Your task to perform on an android device: toggle wifi Image 0: 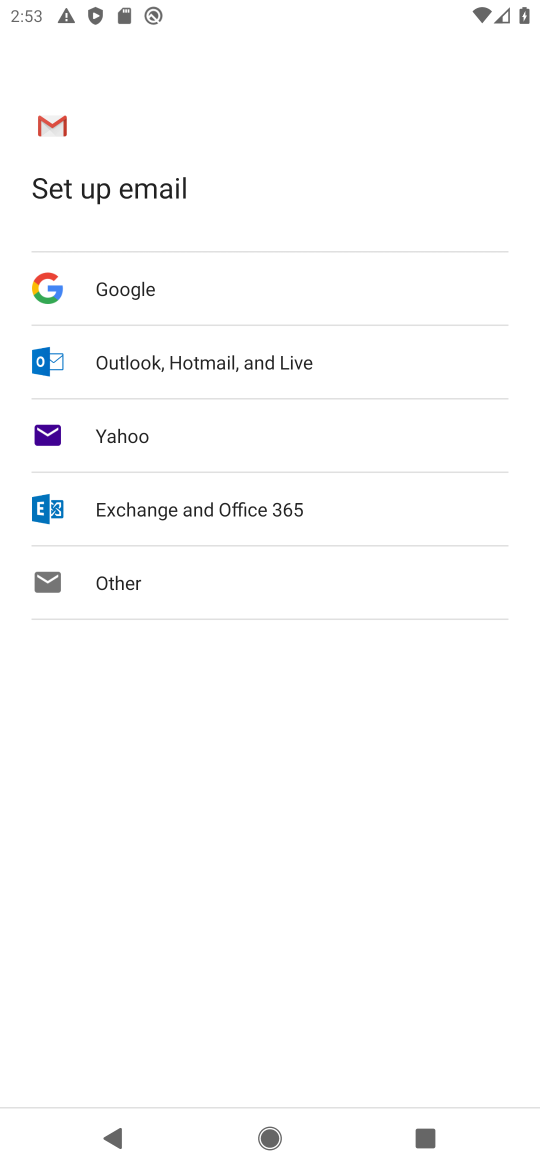
Step 0: press home button
Your task to perform on an android device: toggle wifi Image 1: 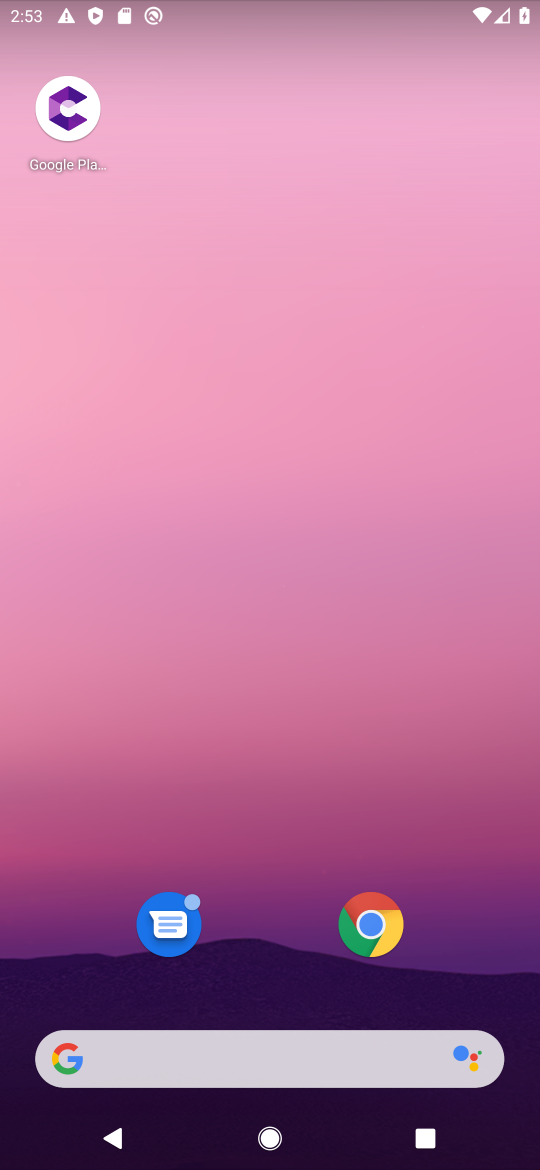
Step 1: drag from (315, 703) to (309, 180)
Your task to perform on an android device: toggle wifi Image 2: 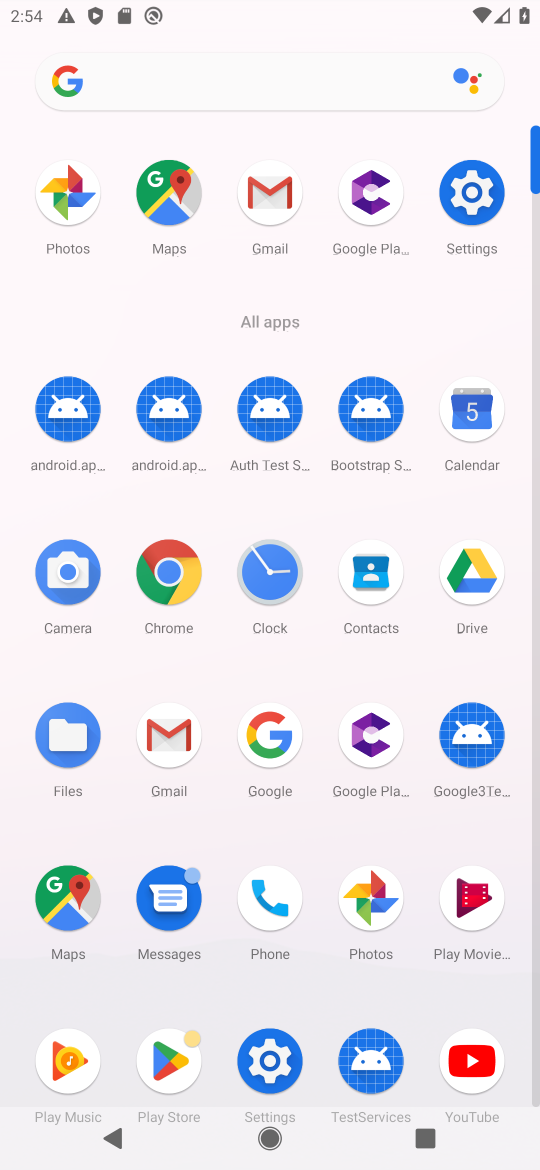
Step 2: click (293, 1060)
Your task to perform on an android device: toggle wifi Image 3: 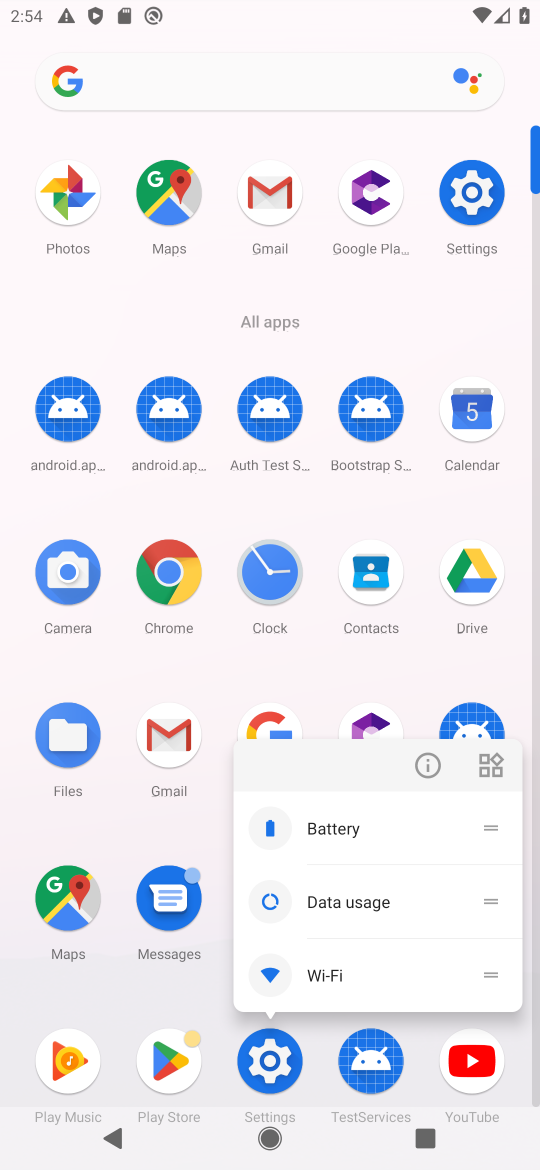
Step 3: click (261, 1061)
Your task to perform on an android device: toggle wifi Image 4: 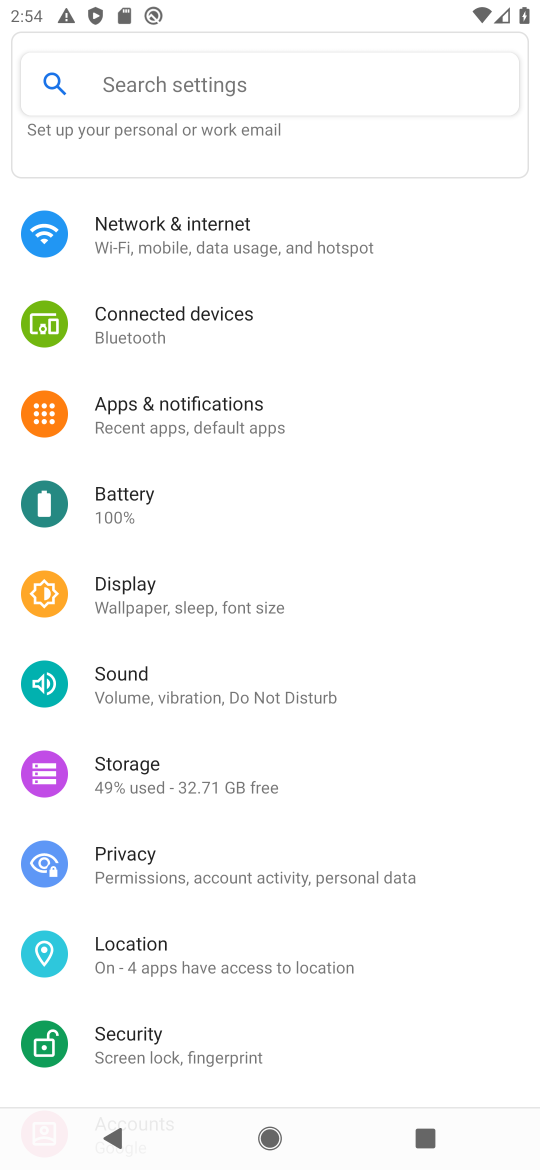
Step 4: click (265, 261)
Your task to perform on an android device: toggle wifi Image 5: 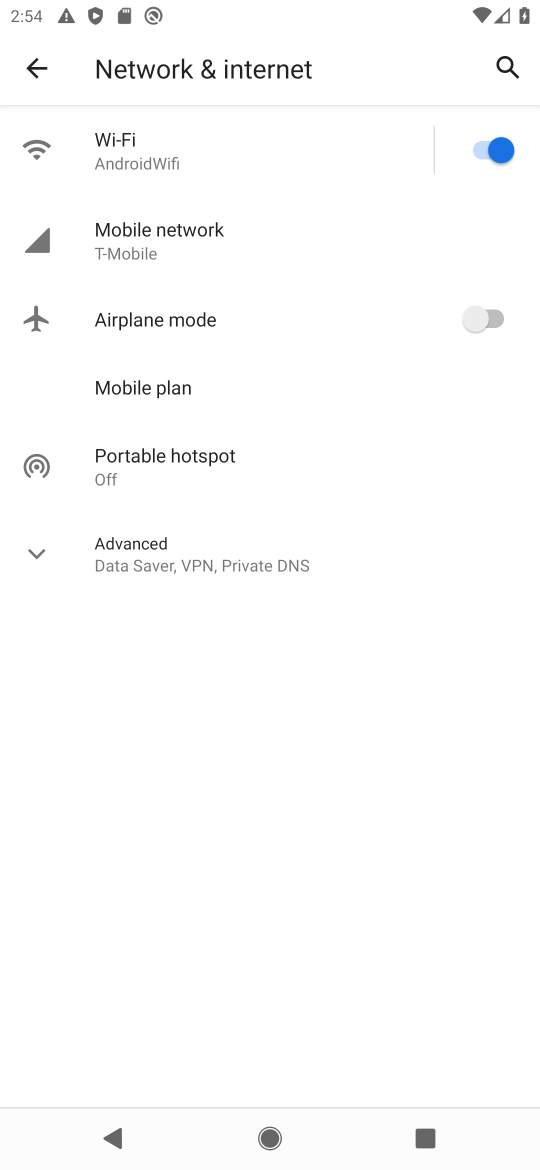
Step 5: click (442, 133)
Your task to perform on an android device: toggle wifi Image 6: 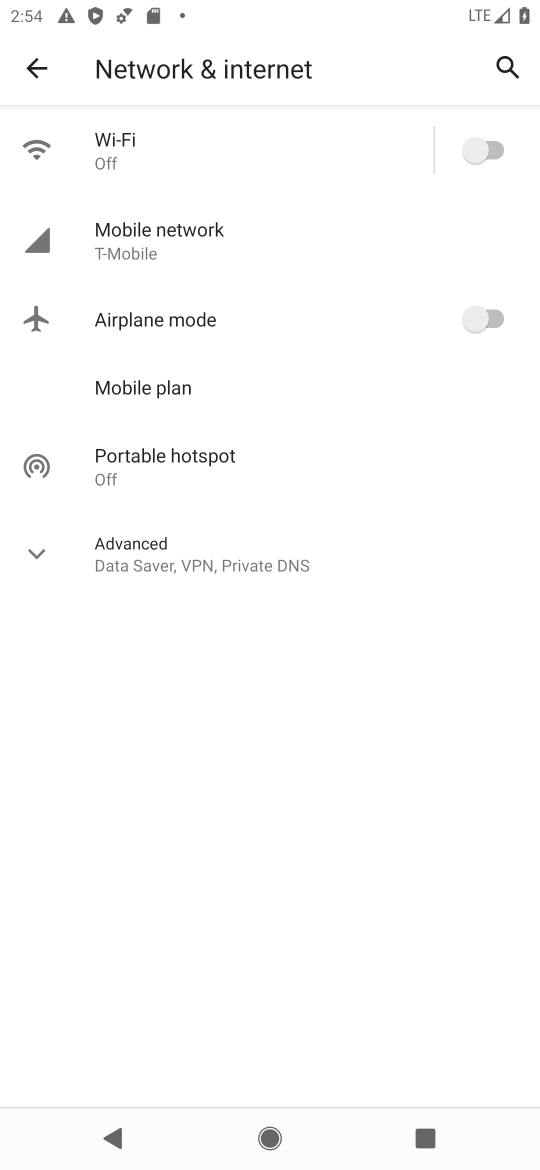
Step 6: task complete